Your task to perform on an android device: change alarm snooze length Image 0: 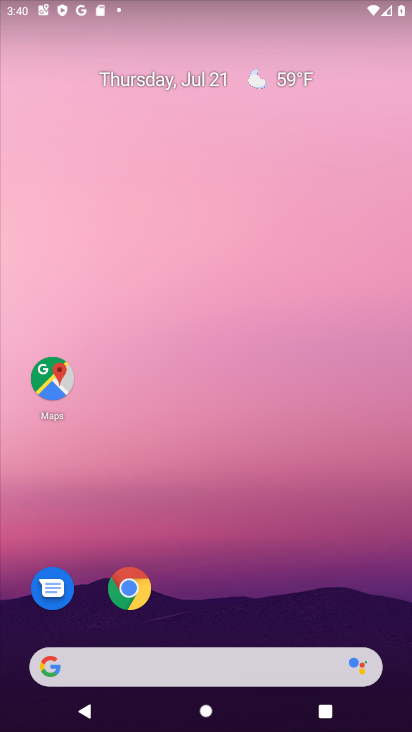
Step 0: drag from (244, 723) to (221, 107)
Your task to perform on an android device: change alarm snooze length Image 1: 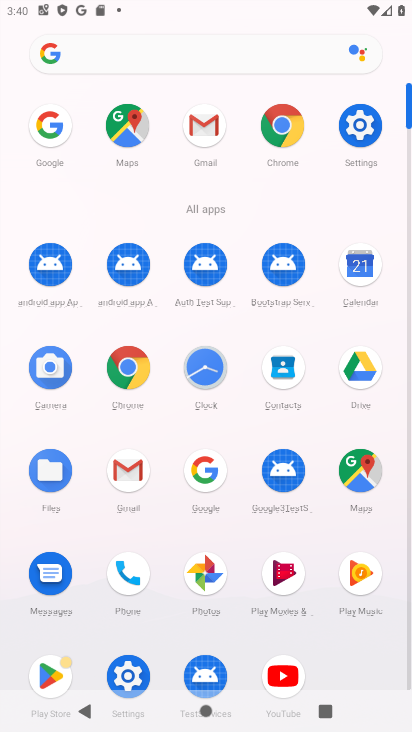
Step 1: click (209, 365)
Your task to perform on an android device: change alarm snooze length Image 2: 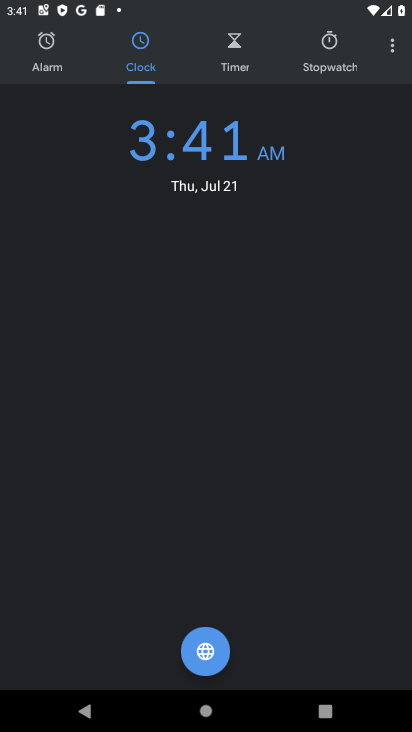
Step 2: click (391, 45)
Your task to perform on an android device: change alarm snooze length Image 3: 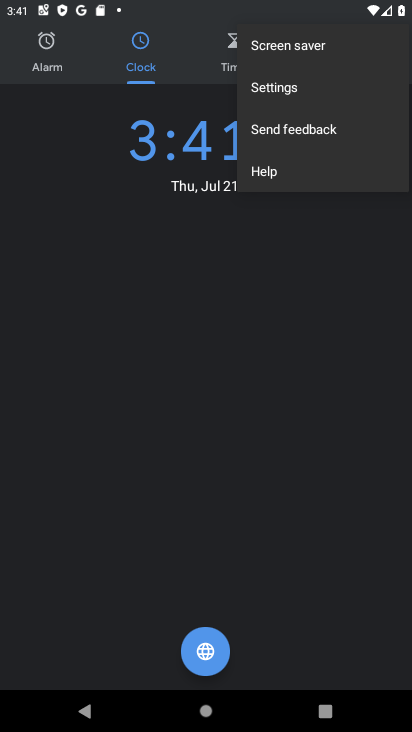
Step 3: click (269, 90)
Your task to perform on an android device: change alarm snooze length Image 4: 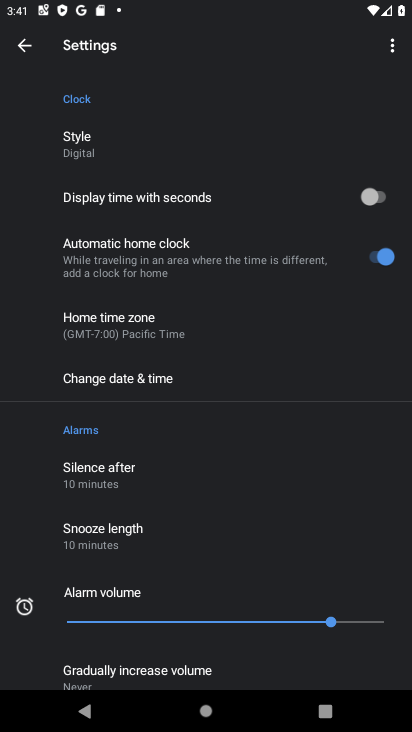
Step 4: drag from (193, 559) to (194, 357)
Your task to perform on an android device: change alarm snooze length Image 5: 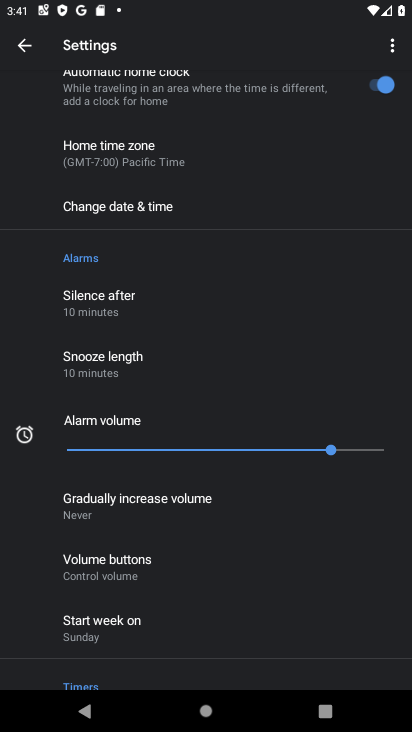
Step 5: click (104, 363)
Your task to perform on an android device: change alarm snooze length Image 6: 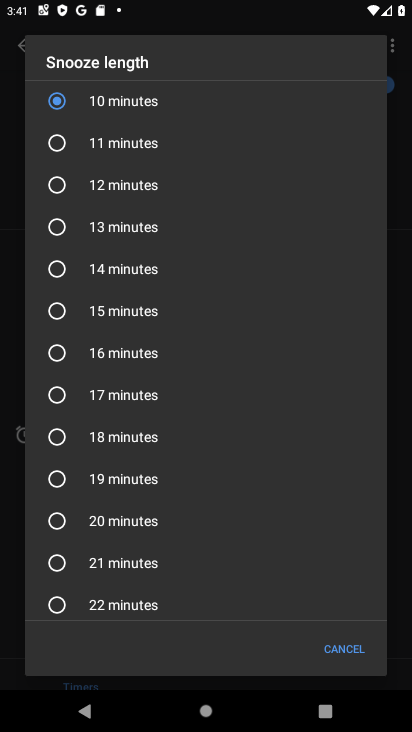
Step 6: click (53, 439)
Your task to perform on an android device: change alarm snooze length Image 7: 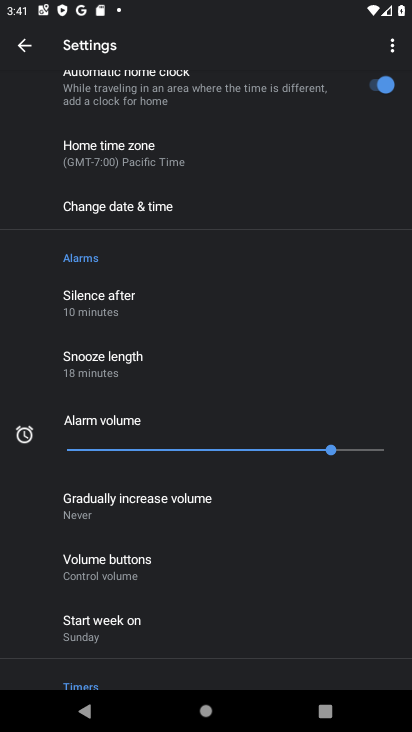
Step 7: task complete